Your task to perform on an android device: Go to network settings Image 0: 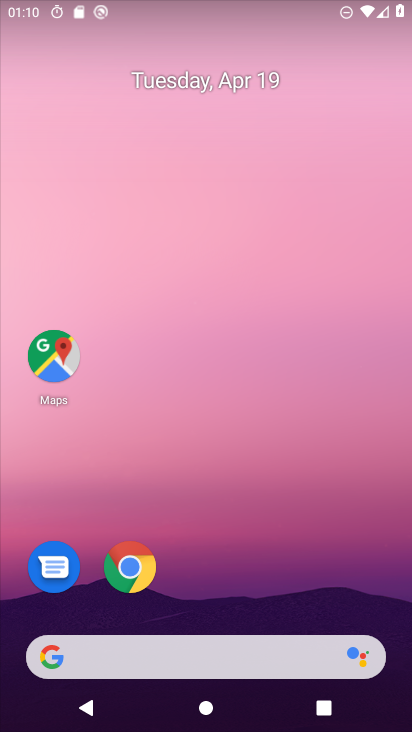
Step 0: drag from (295, 560) to (229, 0)
Your task to perform on an android device: Go to network settings Image 1: 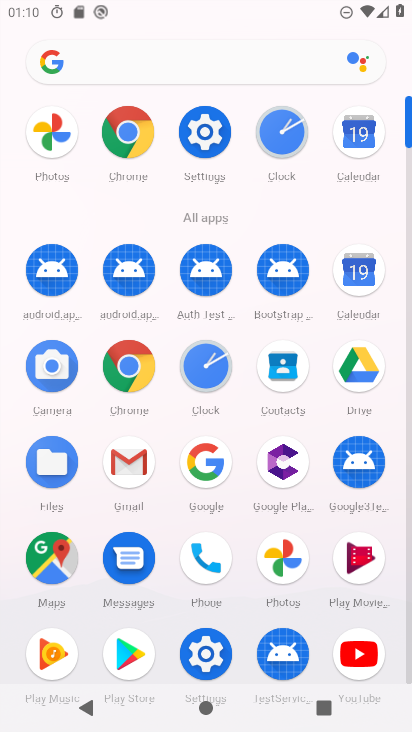
Step 1: click (205, 133)
Your task to perform on an android device: Go to network settings Image 2: 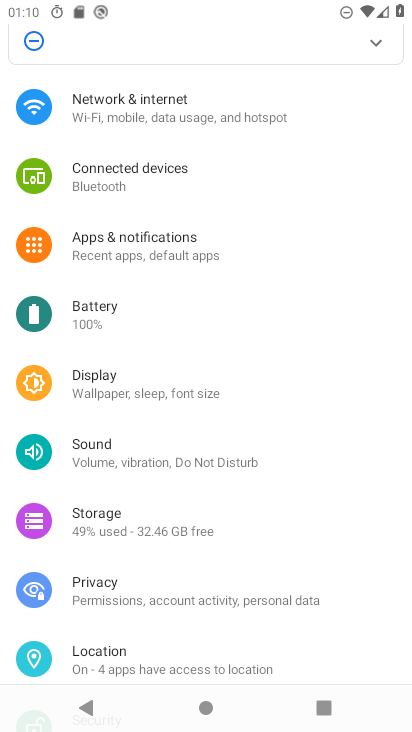
Step 2: click (152, 109)
Your task to perform on an android device: Go to network settings Image 3: 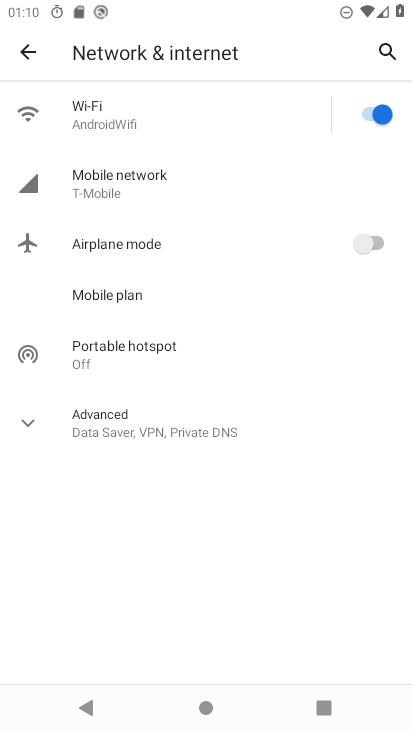
Step 3: task complete